Your task to perform on an android device: Set the phone to "Do not disturb". Image 0: 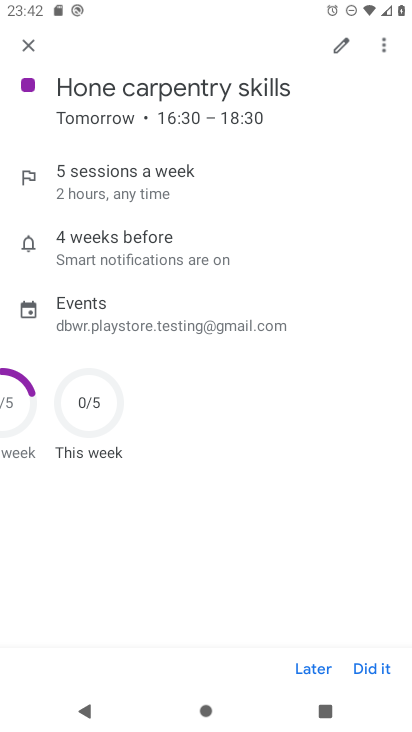
Step 0: press home button
Your task to perform on an android device: Set the phone to "Do not disturb". Image 1: 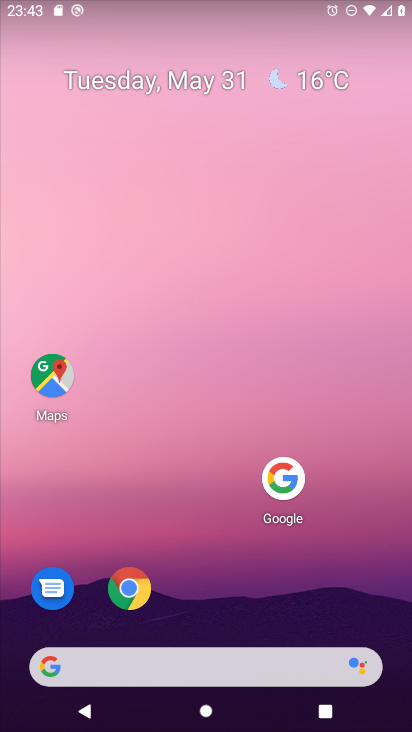
Step 1: drag from (168, 661) to (304, 80)
Your task to perform on an android device: Set the phone to "Do not disturb". Image 2: 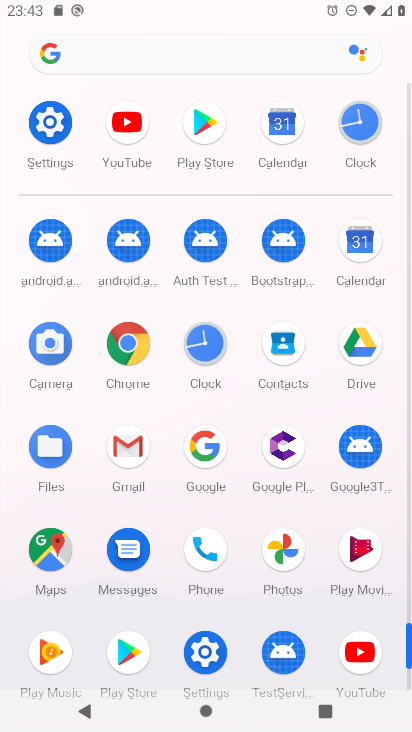
Step 2: click (57, 125)
Your task to perform on an android device: Set the phone to "Do not disturb". Image 3: 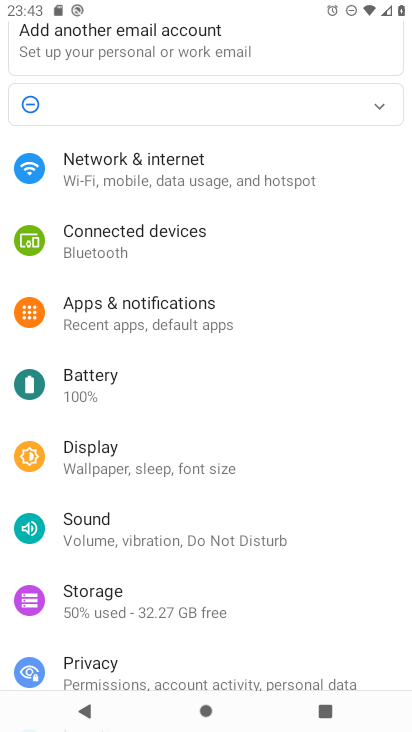
Step 3: click (174, 543)
Your task to perform on an android device: Set the phone to "Do not disturb". Image 4: 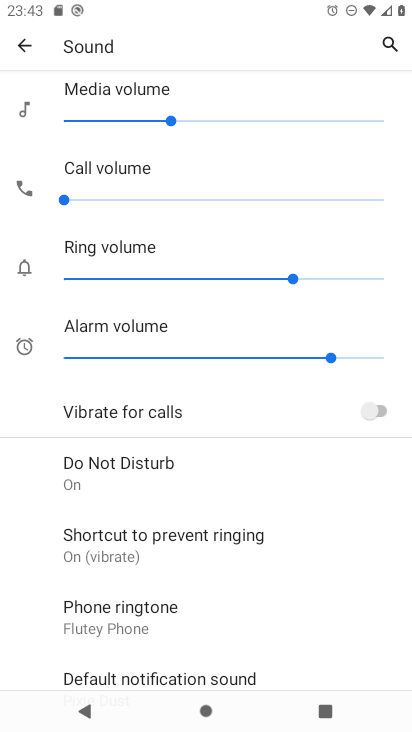
Step 4: click (140, 477)
Your task to perform on an android device: Set the phone to "Do not disturb". Image 5: 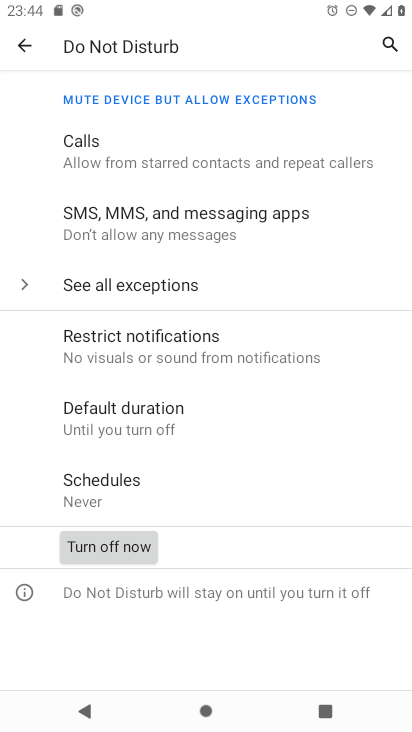
Step 5: task complete